Your task to perform on an android device: Search for dell alienware on ebay.com, select the first entry, and add it to the cart. Image 0: 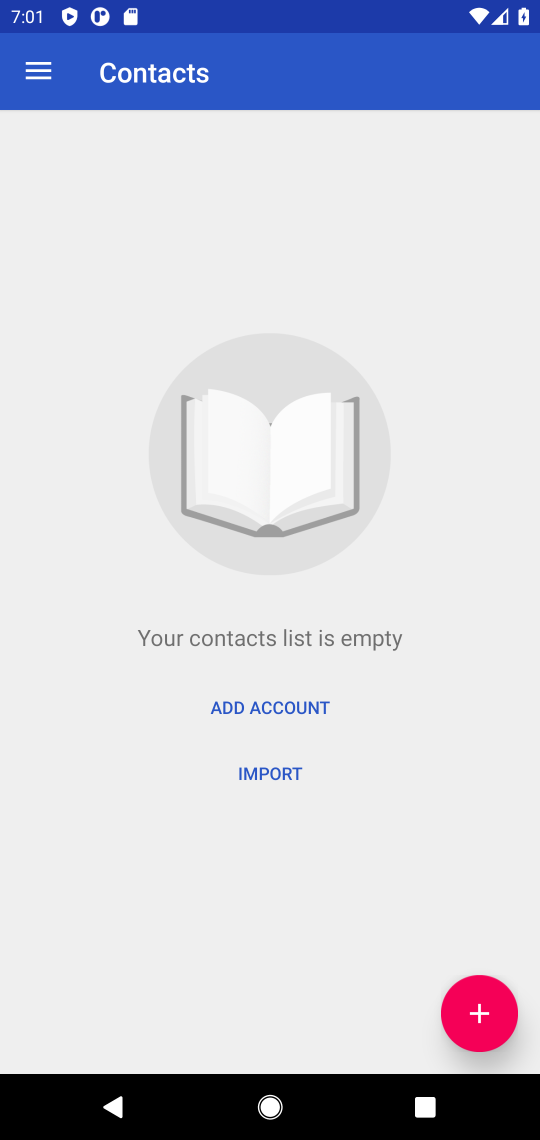
Step 0: press home button
Your task to perform on an android device: Search for dell alienware on ebay.com, select the first entry, and add it to the cart. Image 1: 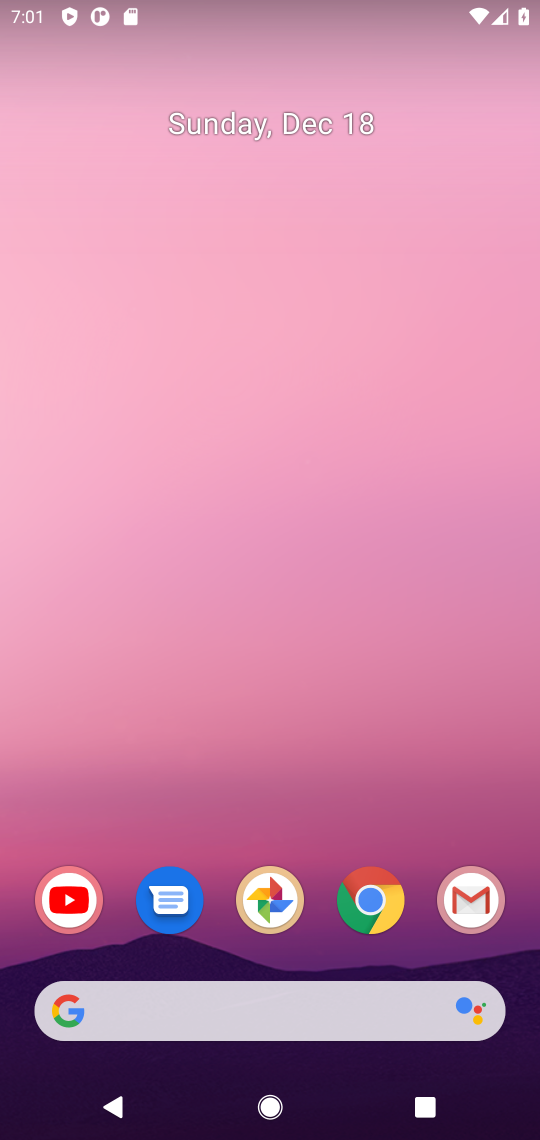
Step 1: click (370, 906)
Your task to perform on an android device: Search for dell alienware on ebay.com, select the first entry, and add it to the cart. Image 2: 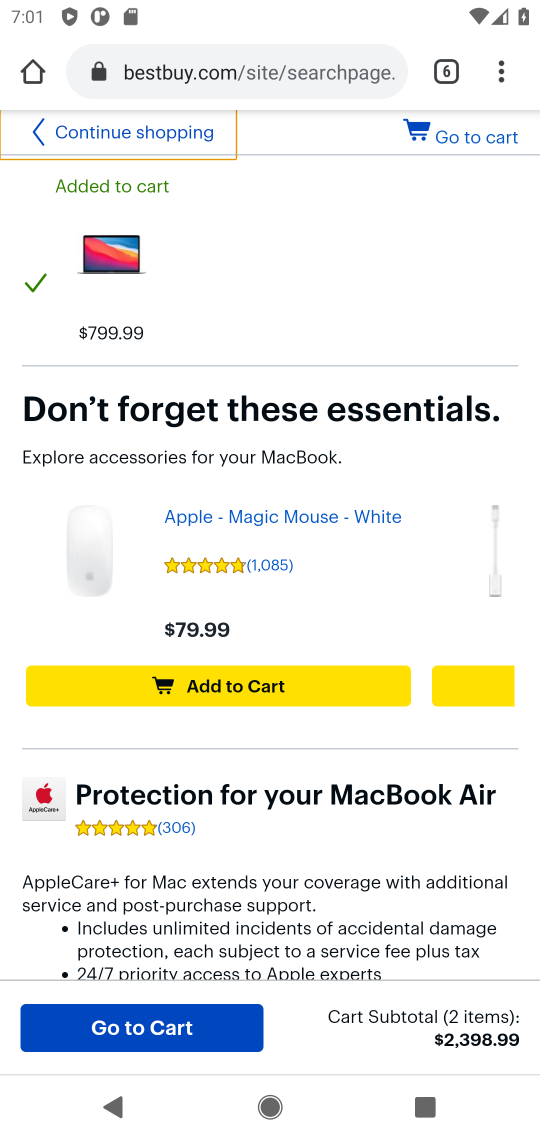
Step 2: click (438, 71)
Your task to perform on an android device: Search for dell alienware on ebay.com, select the first entry, and add it to the cart. Image 3: 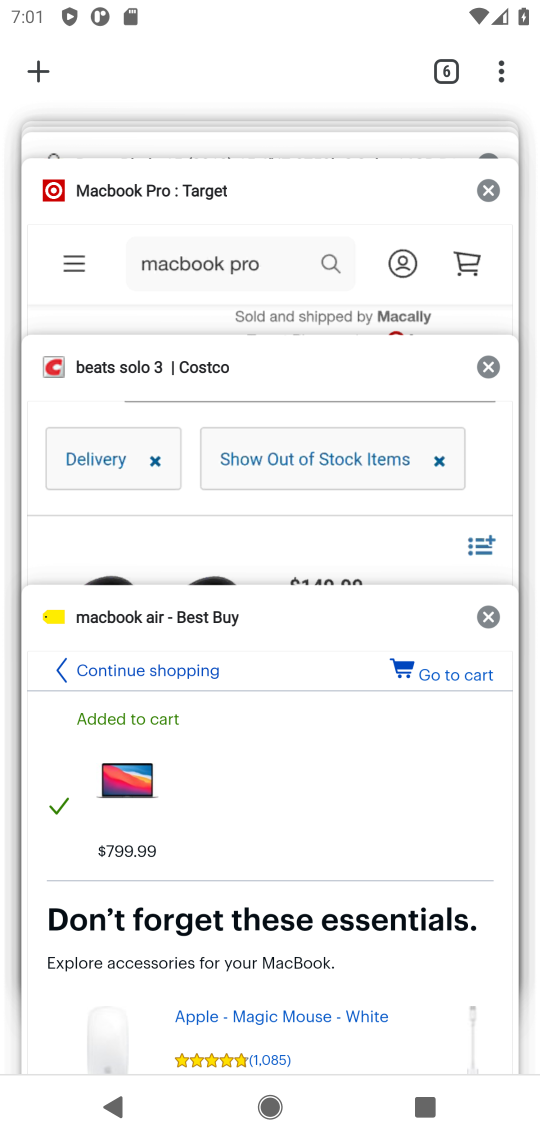
Step 3: drag from (287, 136) to (305, 545)
Your task to perform on an android device: Search for dell alienware on ebay.com, select the first entry, and add it to the cart. Image 4: 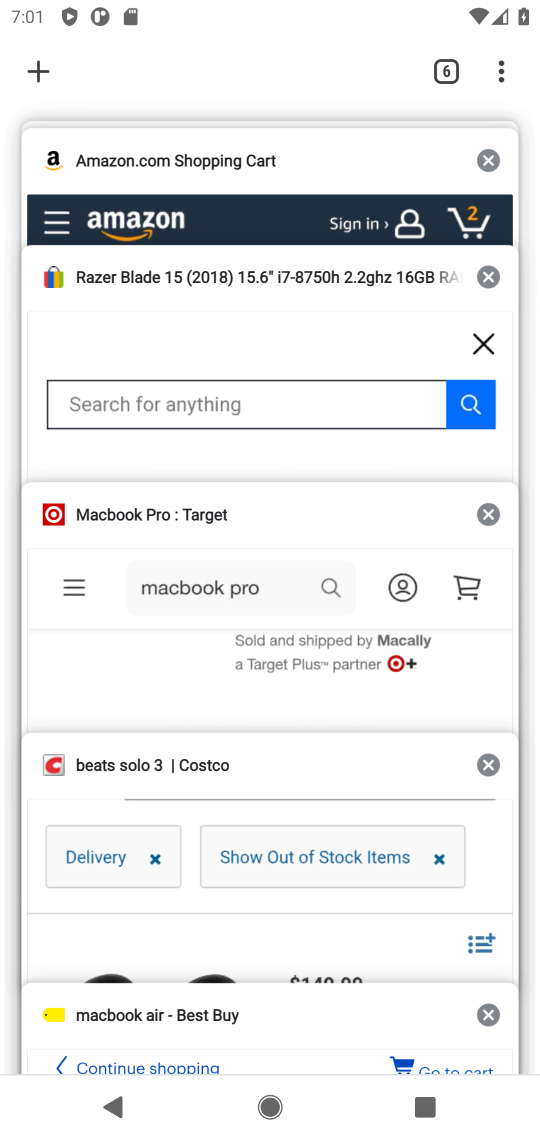
Step 4: click (246, 384)
Your task to perform on an android device: Search for dell alienware on ebay.com, select the first entry, and add it to the cart. Image 5: 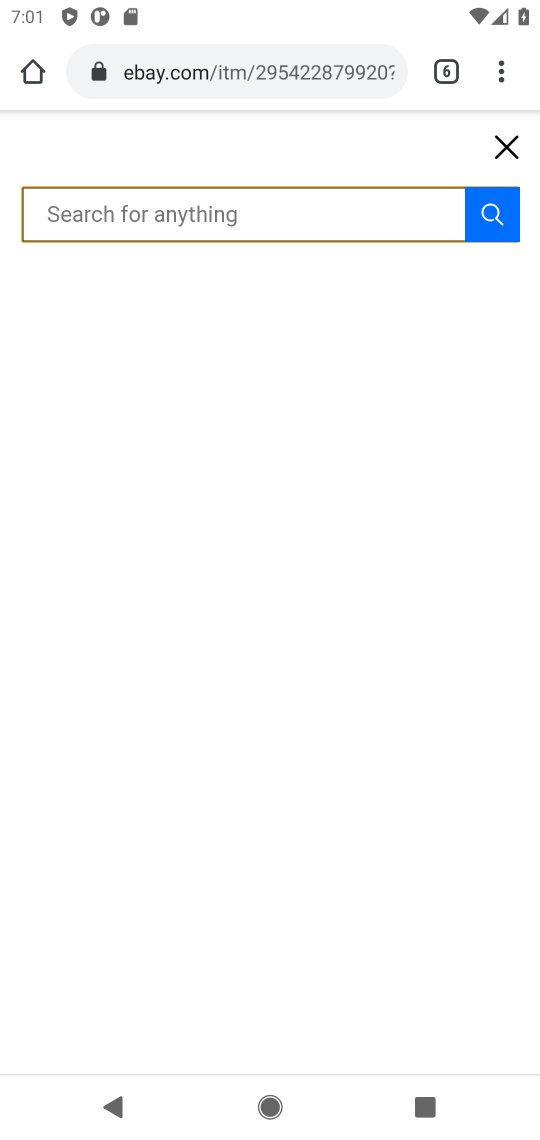
Step 5: type "dell alienware"
Your task to perform on an android device: Search for dell alienware on ebay.com, select the first entry, and add it to the cart. Image 6: 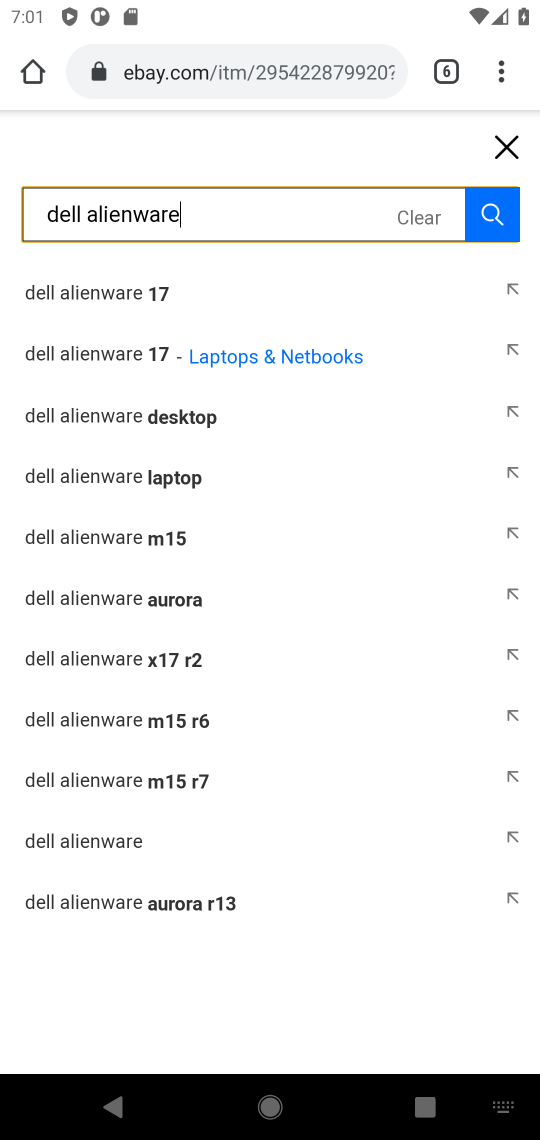
Step 6: click (118, 348)
Your task to perform on an android device: Search for dell alienware on ebay.com, select the first entry, and add it to the cart. Image 7: 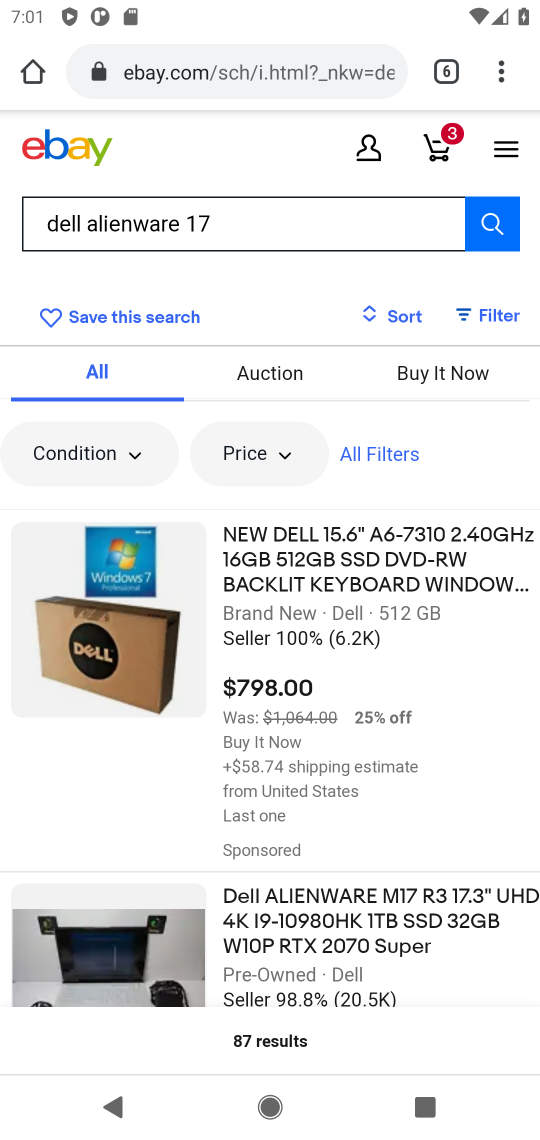
Step 7: click (314, 936)
Your task to perform on an android device: Search for dell alienware on ebay.com, select the first entry, and add it to the cart. Image 8: 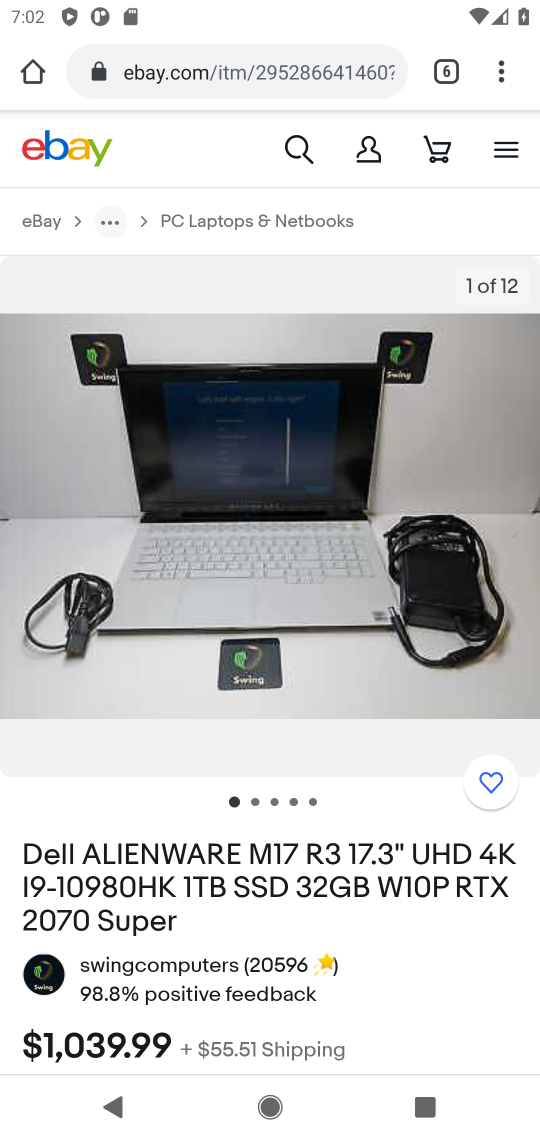
Step 8: drag from (247, 913) to (428, 281)
Your task to perform on an android device: Search for dell alienware on ebay.com, select the first entry, and add it to the cart. Image 9: 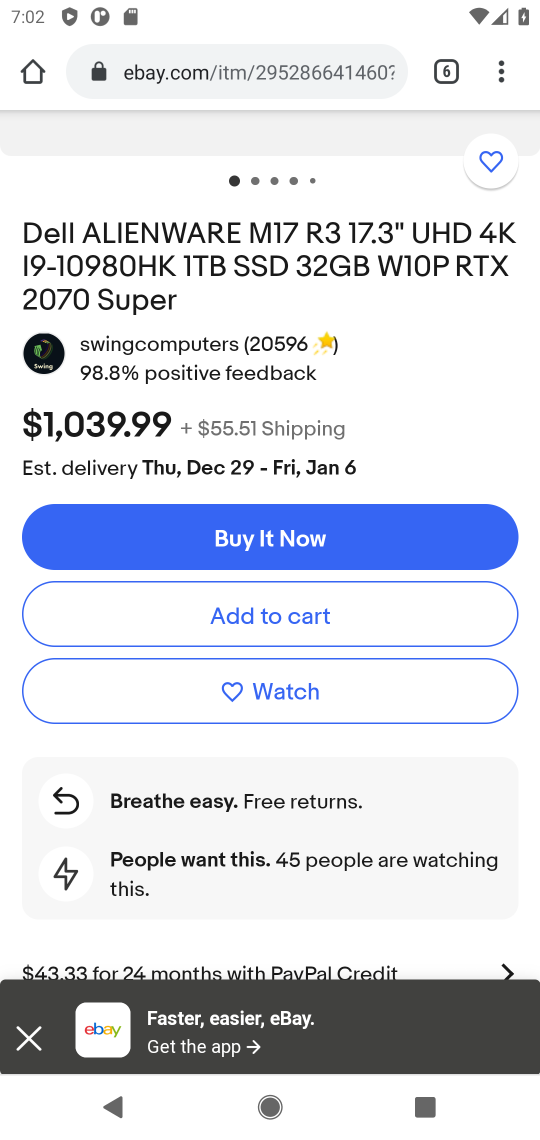
Step 9: click (261, 619)
Your task to perform on an android device: Search for dell alienware on ebay.com, select the first entry, and add it to the cart. Image 10: 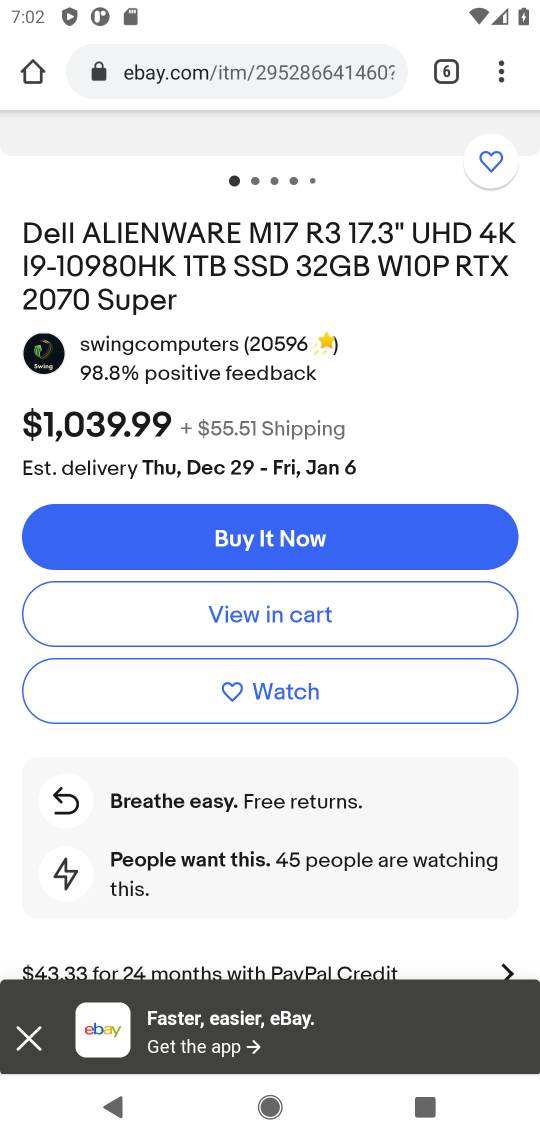
Step 10: click (18, 1053)
Your task to perform on an android device: Search for dell alienware on ebay.com, select the first entry, and add it to the cart. Image 11: 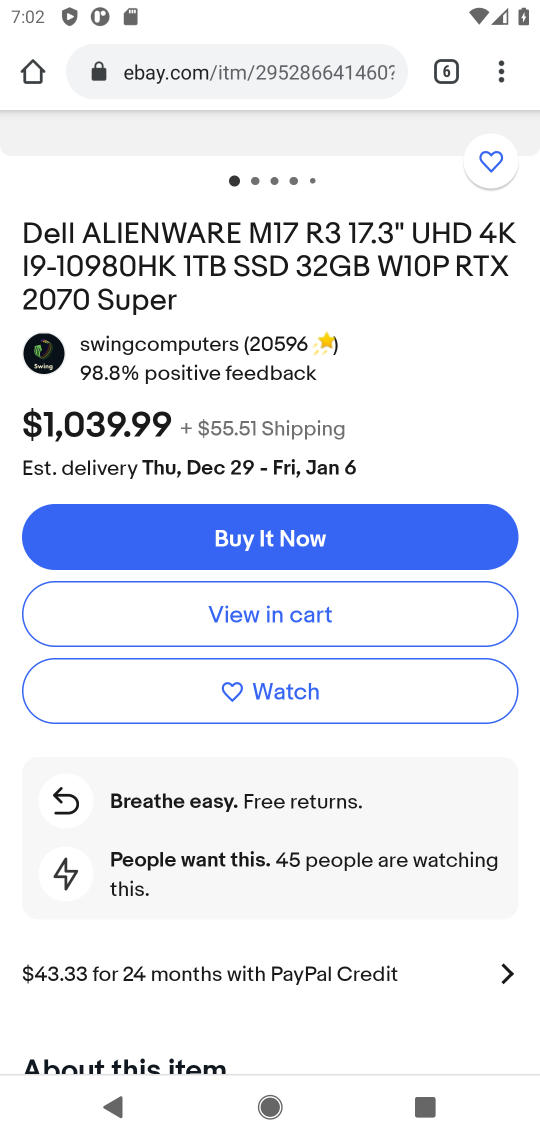
Step 11: task complete